Your task to perform on an android device: Go to location settings Image 0: 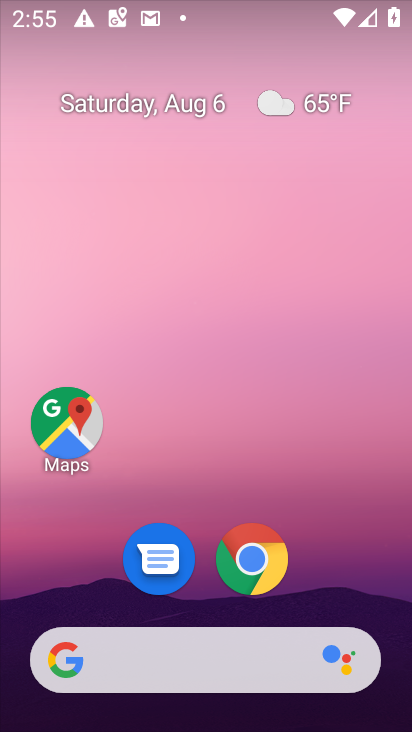
Step 0: drag from (194, 490) to (213, 127)
Your task to perform on an android device: Go to location settings Image 1: 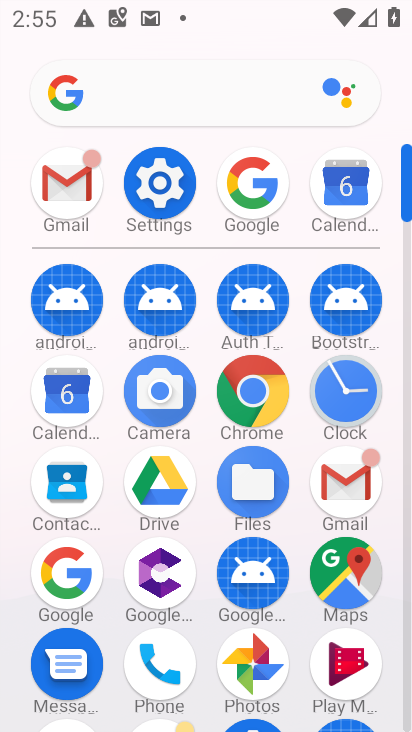
Step 1: click (156, 189)
Your task to perform on an android device: Go to location settings Image 2: 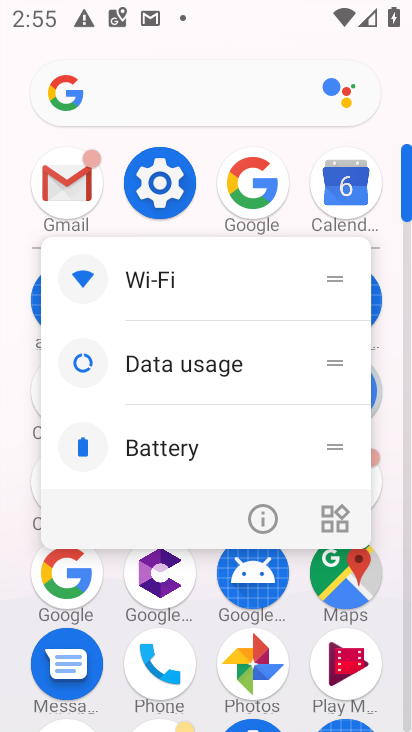
Step 2: click (156, 189)
Your task to perform on an android device: Go to location settings Image 3: 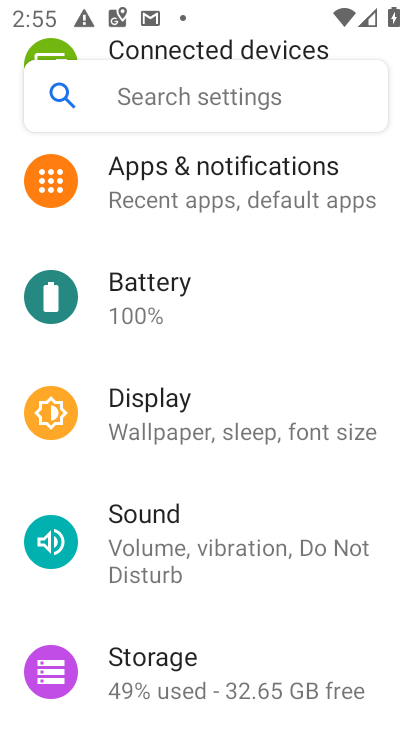
Step 3: drag from (166, 640) to (222, 266)
Your task to perform on an android device: Go to location settings Image 4: 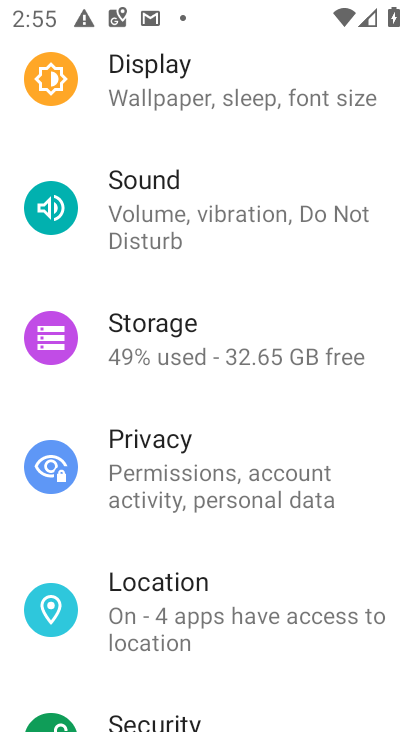
Step 4: click (181, 577)
Your task to perform on an android device: Go to location settings Image 5: 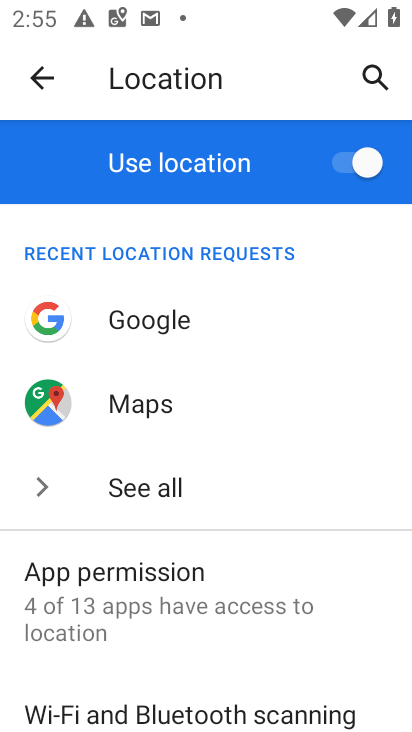
Step 5: task complete